Your task to perform on an android device: see sites visited before in the chrome app Image 0: 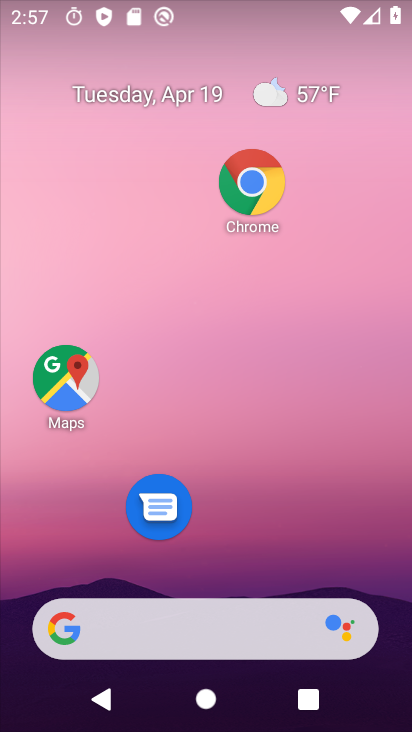
Step 0: drag from (283, 327) to (265, 103)
Your task to perform on an android device: see sites visited before in the chrome app Image 1: 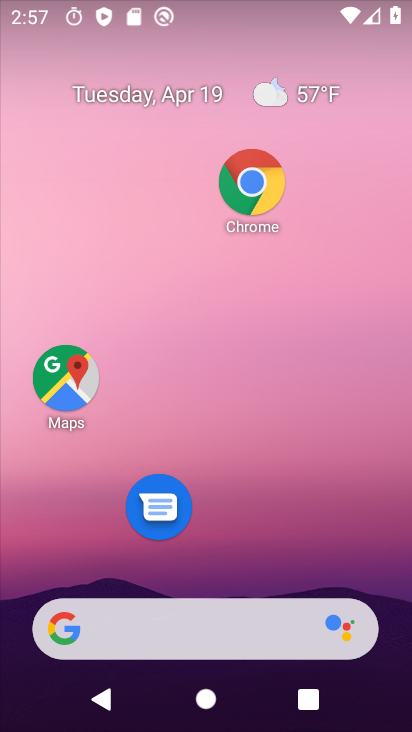
Step 1: drag from (225, 547) to (196, 0)
Your task to perform on an android device: see sites visited before in the chrome app Image 2: 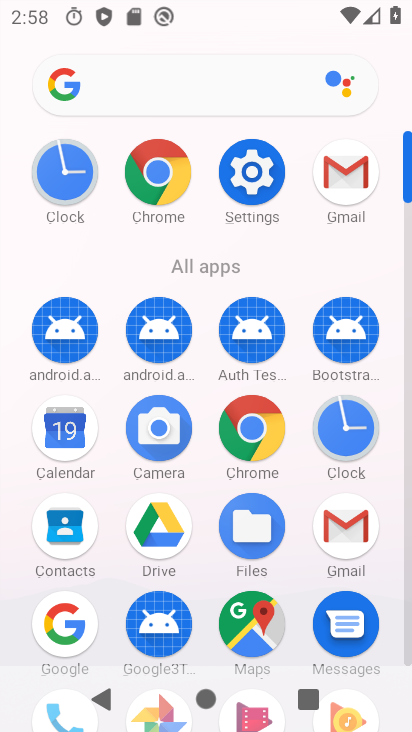
Step 2: click (262, 448)
Your task to perform on an android device: see sites visited before in the chrome app Image 3: 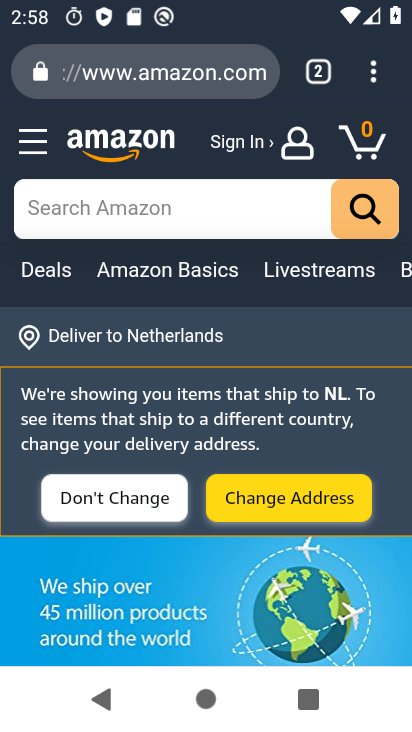
Step 3: click (375, 70)
Your task to perform on an android device: see sites visited before in the chrome app Image 4: 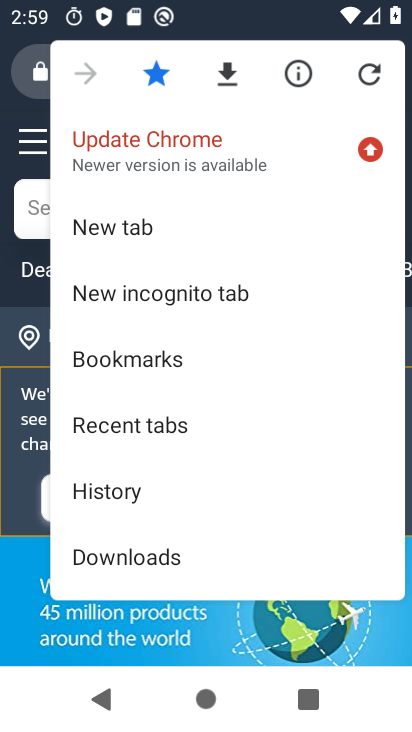
Step 4: drag from (248, 335) to (250, 93)
Your task to perform on an android device: see sites visited before in the chrome app Image 5: 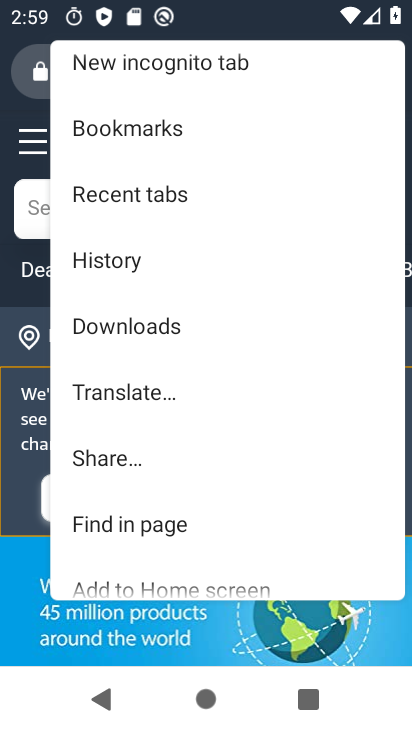
Step 5: click (179, 253)
Your task to perform on an android device: see sites visited before in the chrome app Image 6: 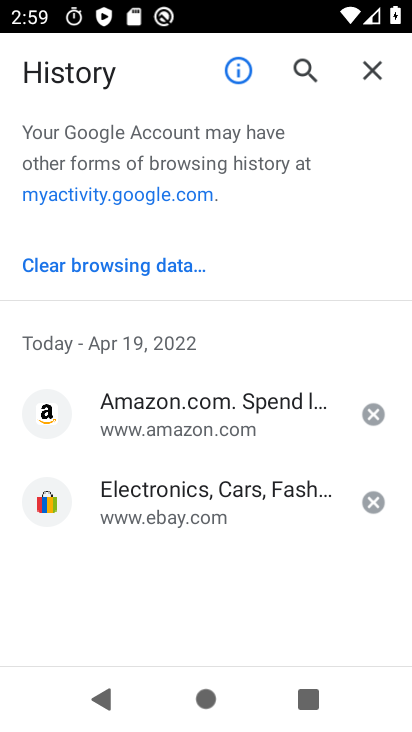
Step 6: task complete